Your task to perform on an android device: Open calendar and show me the third week of next month Image 0: 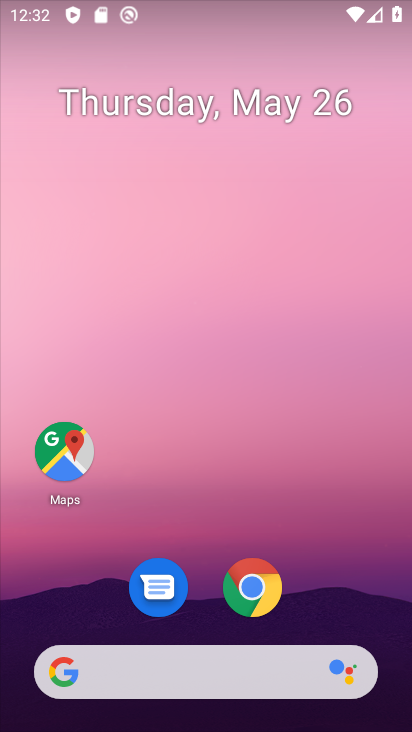
Step 0: drag from (372, 609) to (376, 229)
Your task to perform on an android device: Open calendar and show me the third week of next month Image 1: 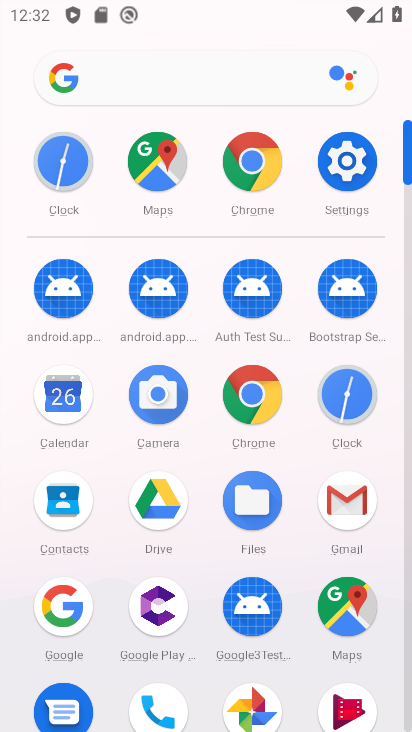
Step 1: click (67, 402)
Your task to perform on an android device: Open calendar and show me the third week of next month Image 2: 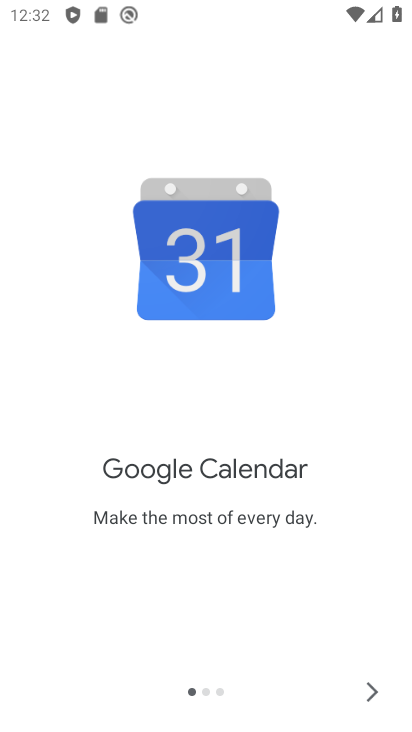
Step 2: click (368, 693)
Your task to perform on an android device: Open calendar and show me the third week of next month Image 3: 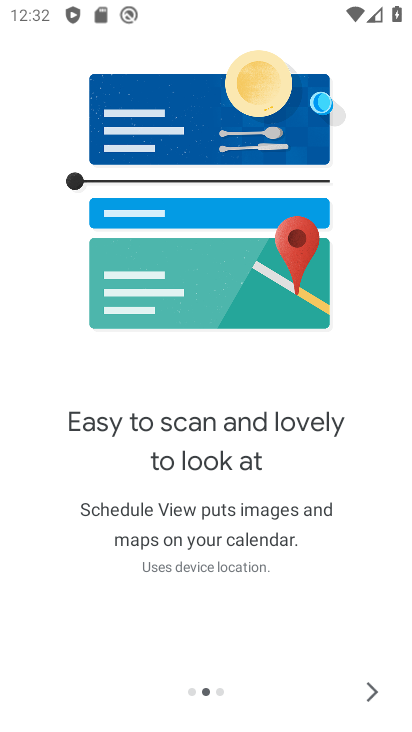
Step 3: click (368, 693)
Your task to perform on an android device: Open calendar and show me the third week of next month Image 4: 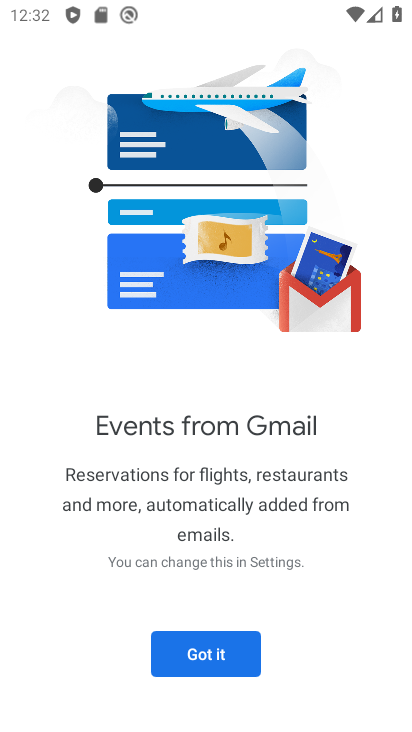
Step 4: click (237, 656)
Your task to perform on an android device: Open calendar and show me the third week of next month Image 5: 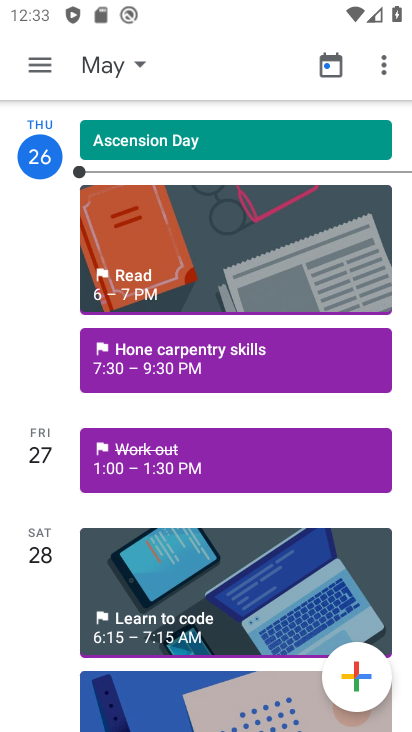
Step 5: click (137, 65)
Your task to perform on an android device: Open calendar and show me the third week of next month Image 6: 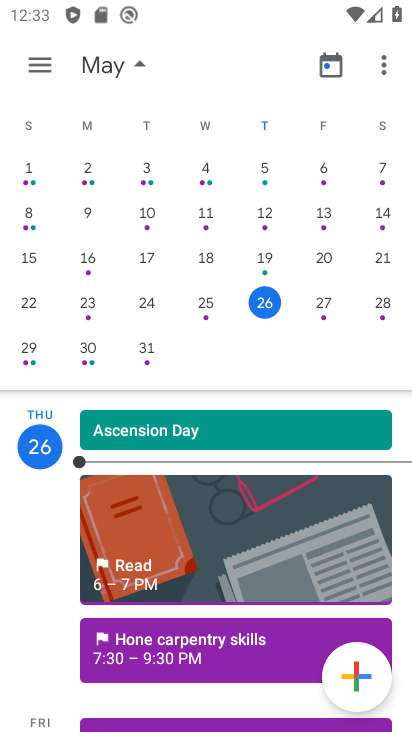
Step 6: drag from (393, 147) to (0, 147)
Your task to perform on an android device: Open calendar and show me the third week of next month Image 7: 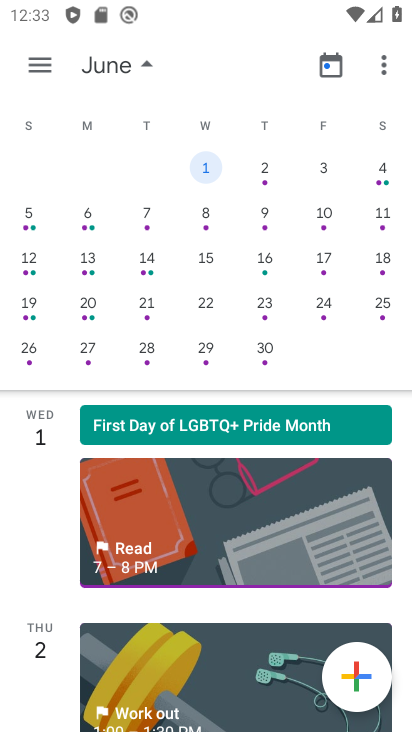
Step 7: click (89, 260)
Your task to perform on an android device: Open calendar and show me the third week of next month Image 8: 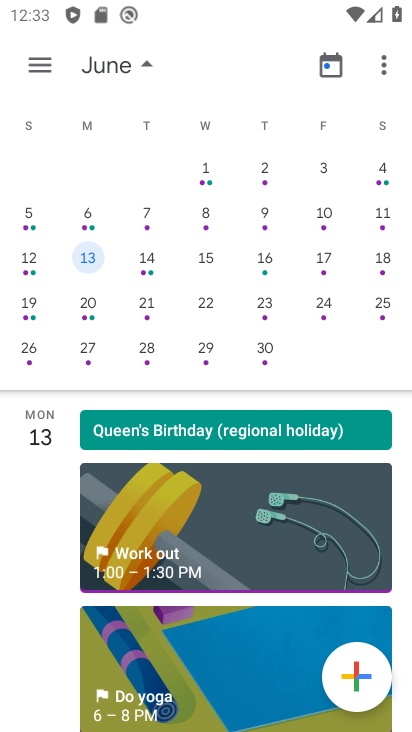
Step 8: task complete